Your task to perform on an android device: Open the calendar app, open the side menu, and click the "Day" option Image 0: 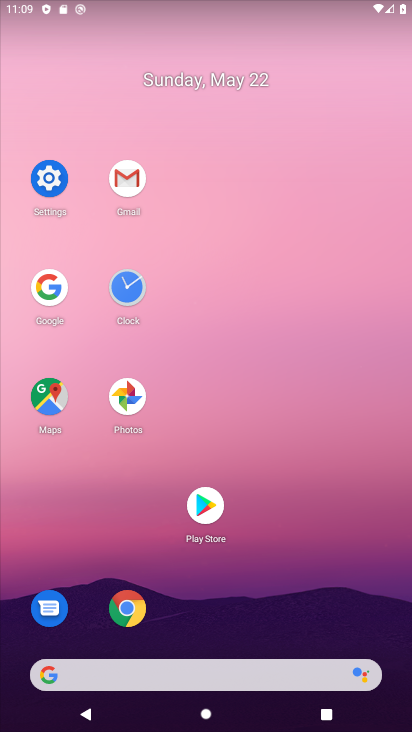
Step 0: drag from (255, 607) to (263, 174)
Your task to perform on an android device: Open the calendar app, open the side menu, and click the "Day" option Image 1: 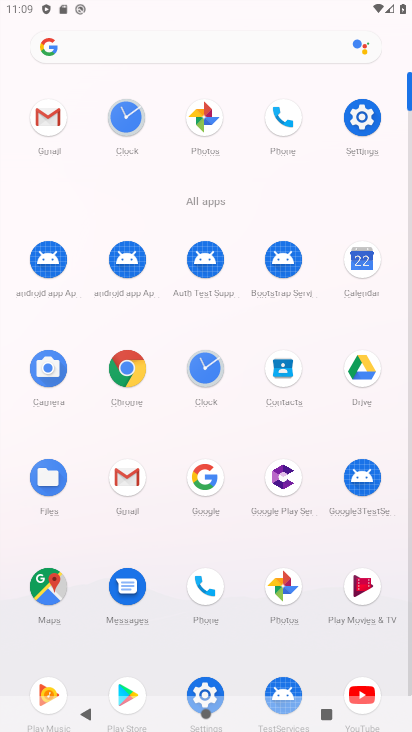
Step 1: drag from (357, 268) to (179, 293)
Your task to perform on an android device: Open the calendar app, open the side menu, and click the "Day" option Image 2: 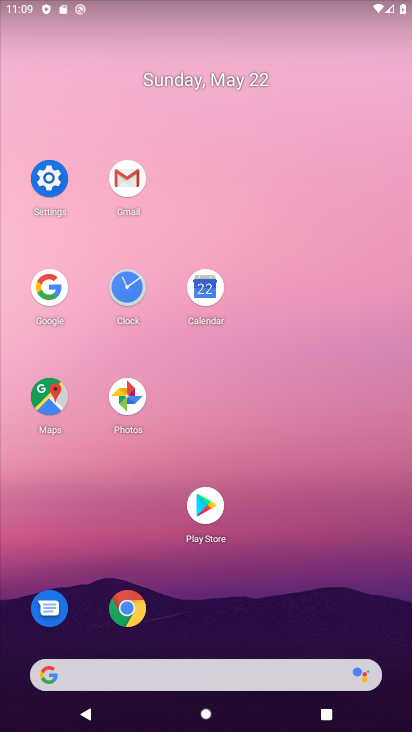
Step 2: click (209, 285)
Your task to perform on an android device: Open the calendar app, open the side menu, and click the "Day" option Image 3: 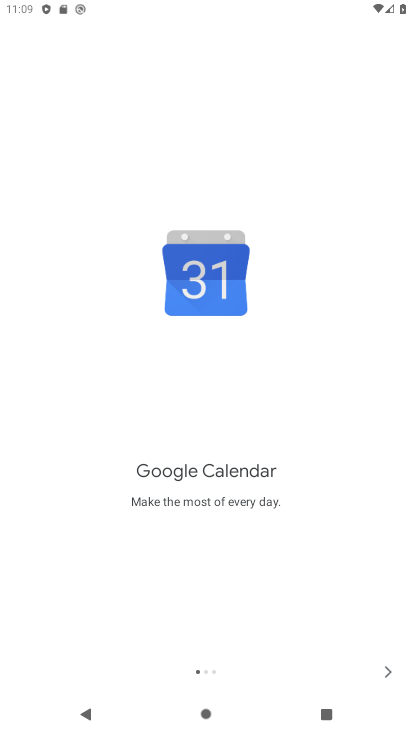
Step 3: click (376, 677)
Your task to perform on an android device: Open the calendar app, open the side menu, and click the "Day" option Image 4: 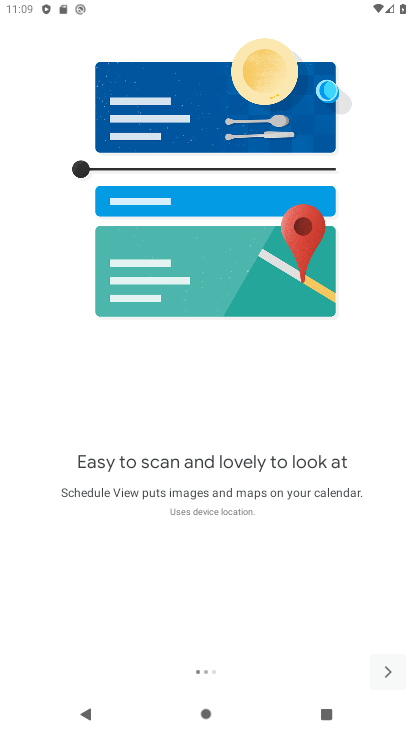
Step 4: click (376, 677)
Your task to perform on an android device: Open the calendar app, open the side menu, and click the "Day" option Image 5: 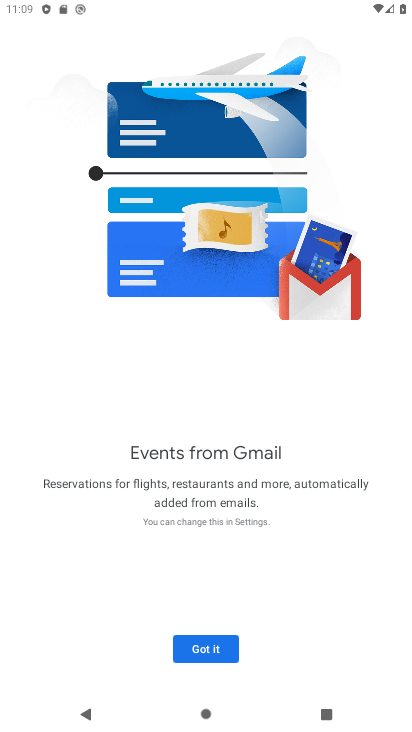
Step 5: click (180, 657)
Your task to perform on an android device: Open the calendar app, open the side menu, and click the "Day" option Image 6: 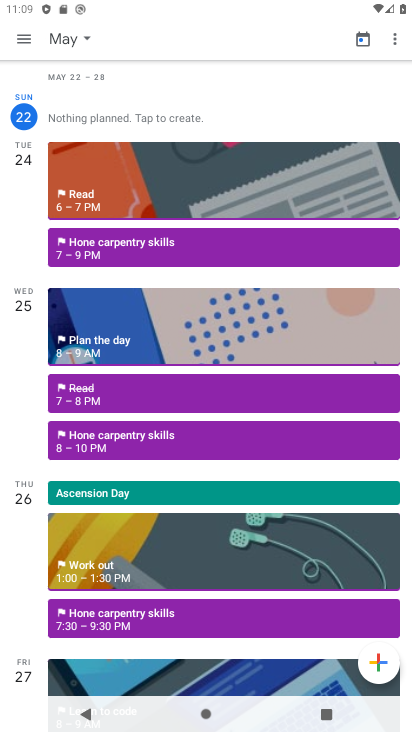
Step 6: click (18, 37)
Your task to perform on an android device: Open the calendar app, open the side menu, and click the "Day" option Image 7: 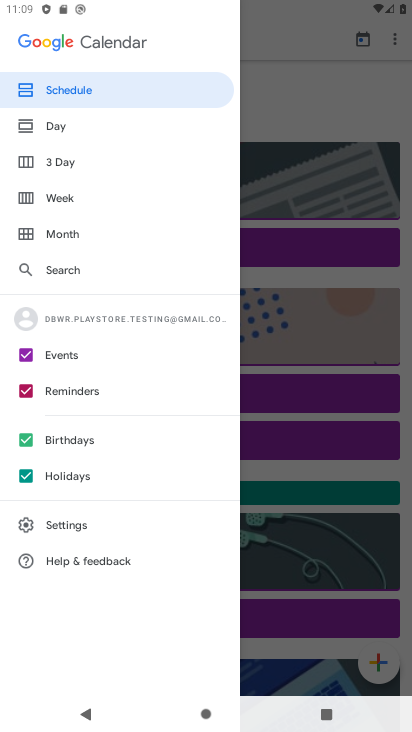
Step 7: click (58, 131)
Your task to perform on an android device: Open the calendar app, open the side menu, and click the "Day" option Image 8: 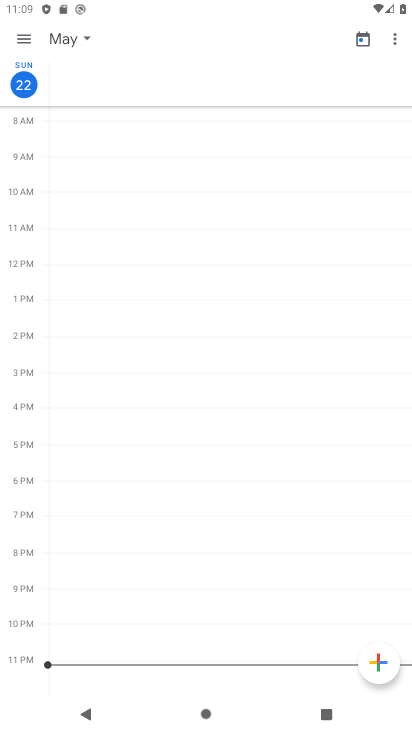
Step 8: task complete